Your task to perform on an android device: Open privacy settings Image 0: 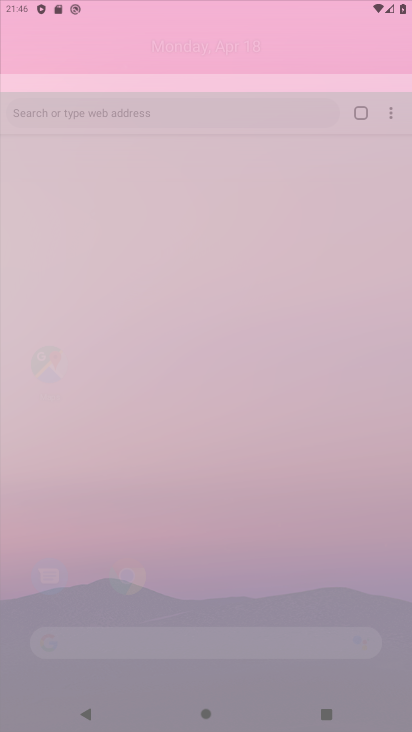
Step 0: click (249, 121)
Your task to perform on an android device: Open privacy settings Image 1: 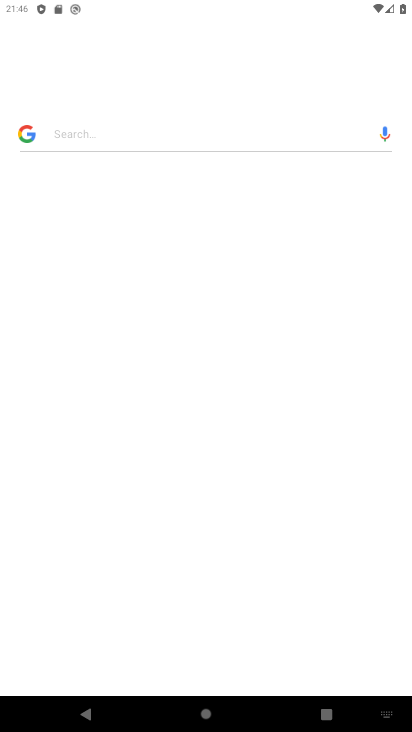
Step 1: press home button
Your task to perform on an android device: Open privacy settings Image 2: 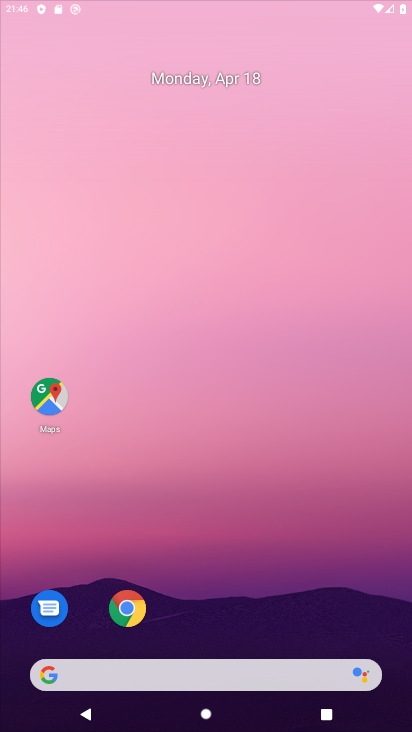
Step 2: drag from (256, 555) to (258, 140)
Your task to perform on an android device: Open privacy settings Image 3: 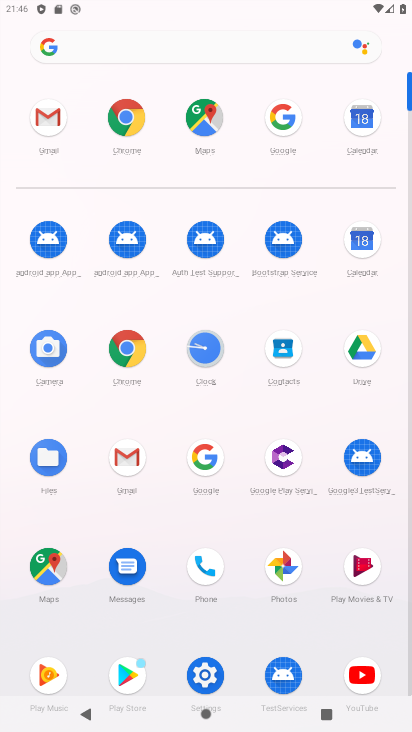
Step 3: click (123, 115)
Your task to perform on an android device: Open privacy settings Image 4: 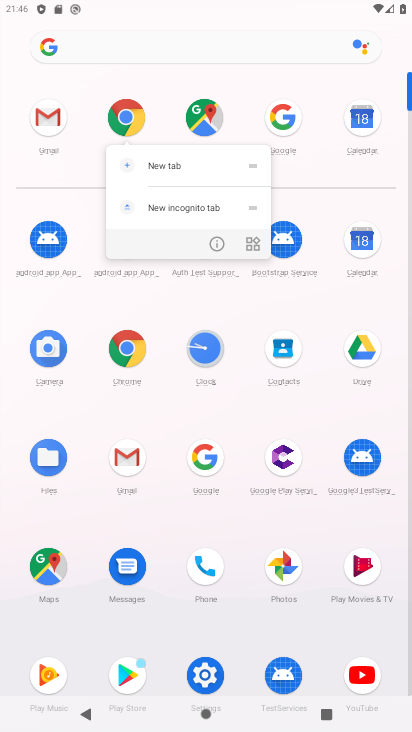
Step 4: click (122, 114)
Your task to perform on an android device: Open privacy settings Image 5: 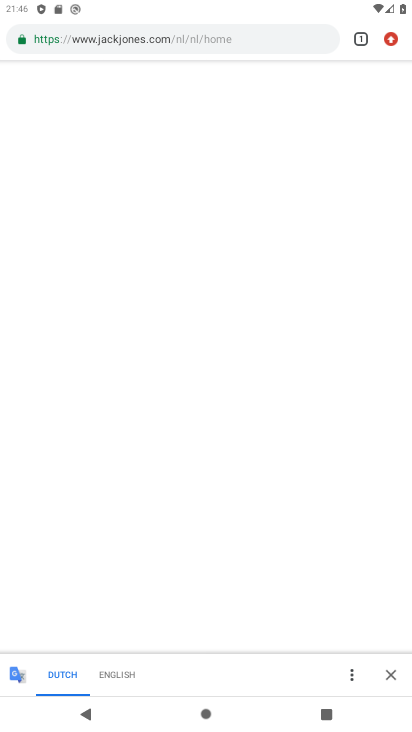
Step 5: click (391, 38)
Your task to perform on an android device: Open privacy settings Image 6: 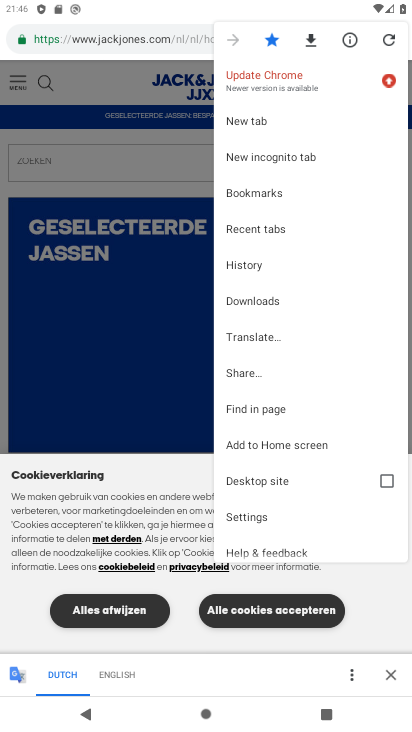
Step 6: click (265, 515)
Your task to perform on an android device: Open privacy settings Image 7: 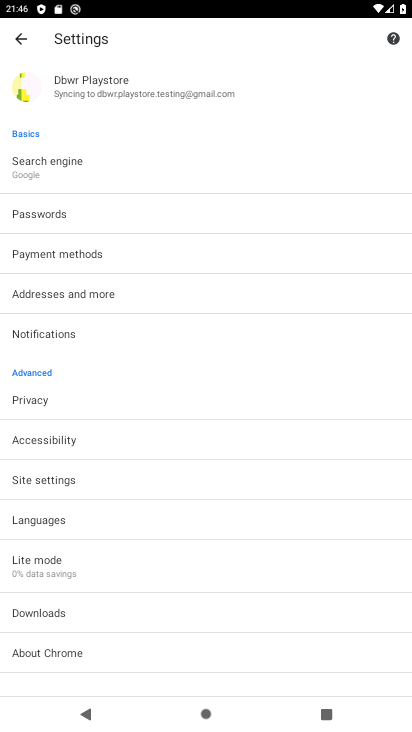
Step 7: click (43, 399)
Your task to perform on an android device: Open privacy settings Image 8: 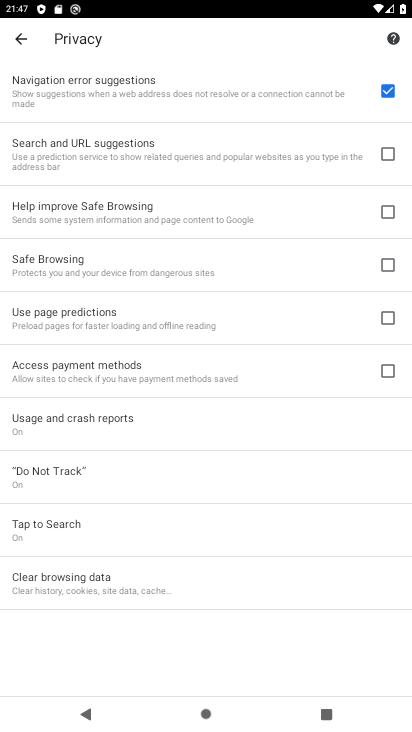
Step 8: task complete